Your task to perform on an android device: Open eBay Image 0: 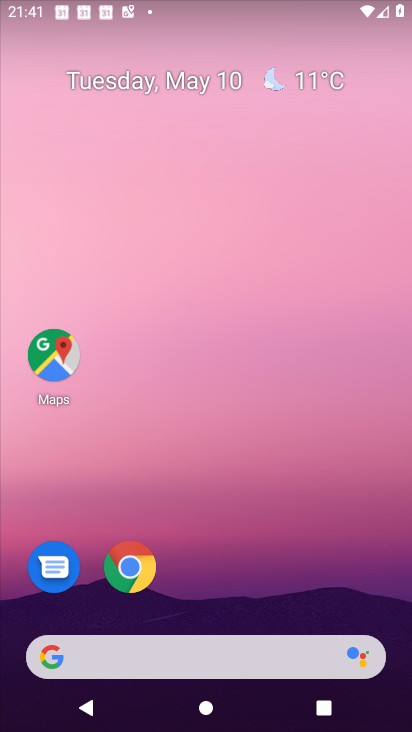
Step 0: click (119, 568)
Your task to perform on an android device: Open eBay Image 1: 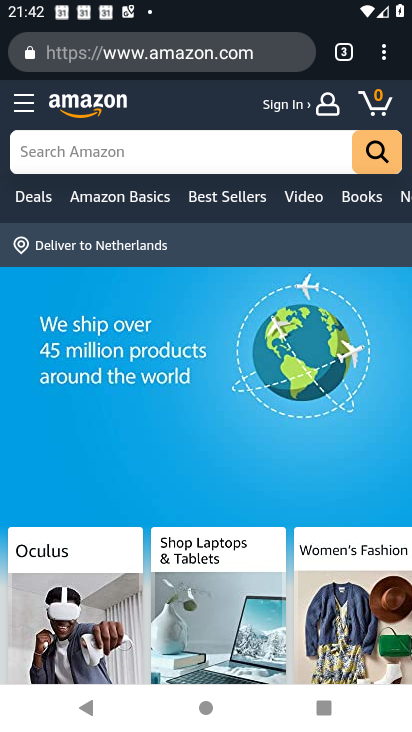
Step 1: click (347, 49)
Your task to perform on an android device: Open eBay Image 2: 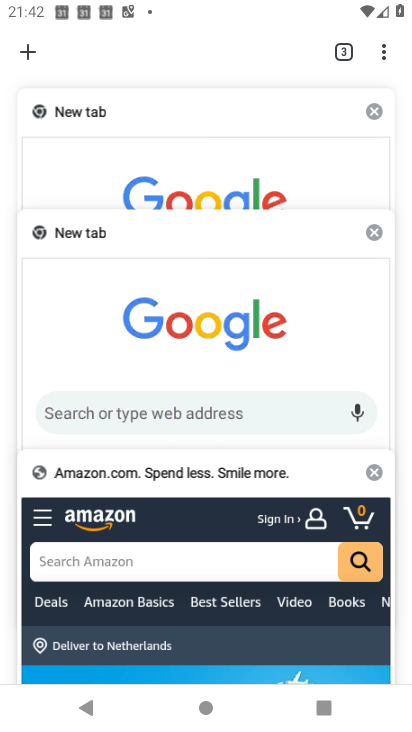
Step 2: click (379, 474)
Your task to perform on an android device: Open eBay Image 3: 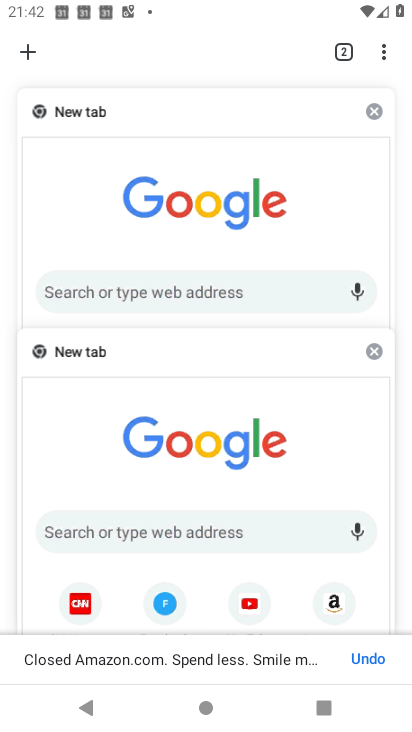
Step 3: click (377, 345)
Your task to perform on an android device: Open eBay Image 4: 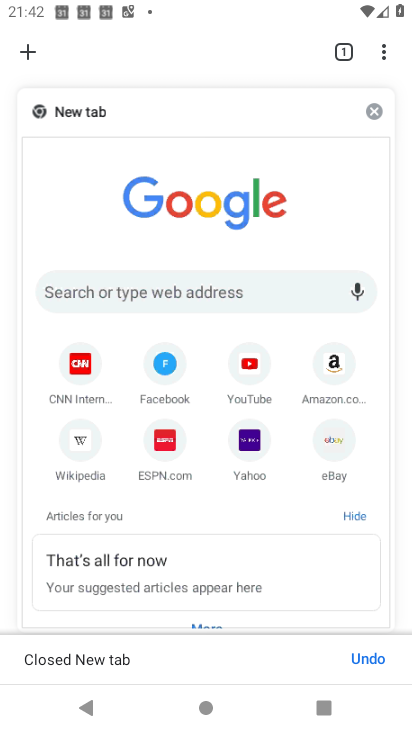
Step 4: click (378, 106)
Your task to perform on an android device: Open eBay Image 5: 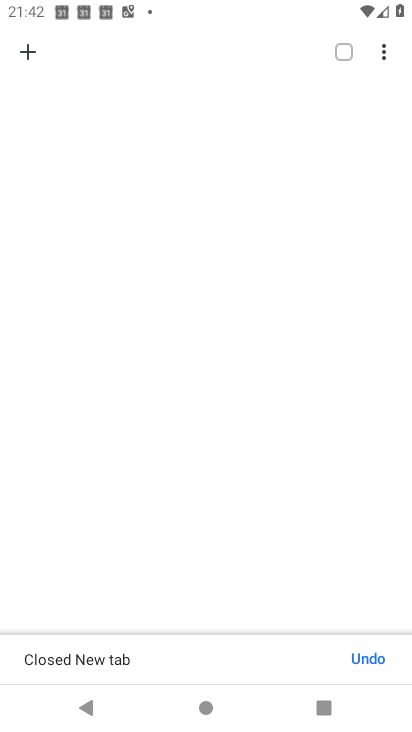
Step 5: click (24, 53)
Your task to perform on an android device: Open eBay Image 6: 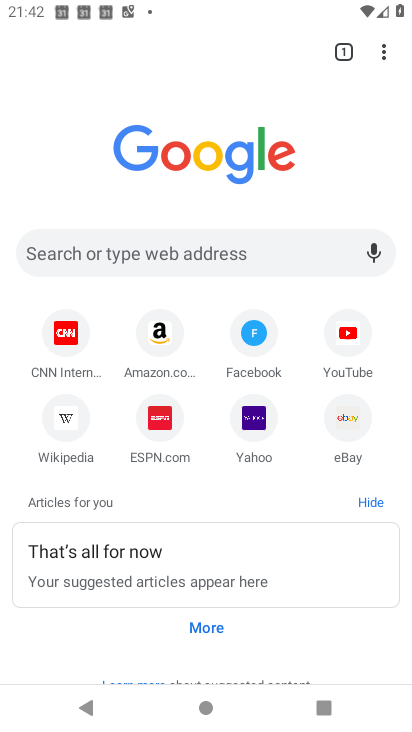
Step 6: click (349, 419)
Your task to perform on an android device: Open eBay Image 7: 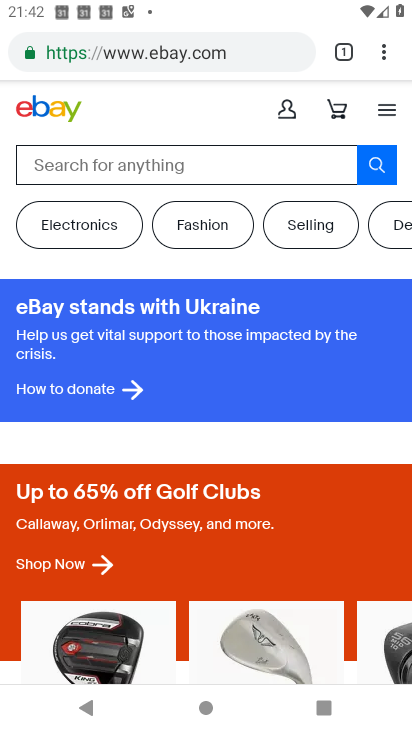
Step 7: task complete